Your task to perform on an android device: turn off data saver in the chrome app Image 0: 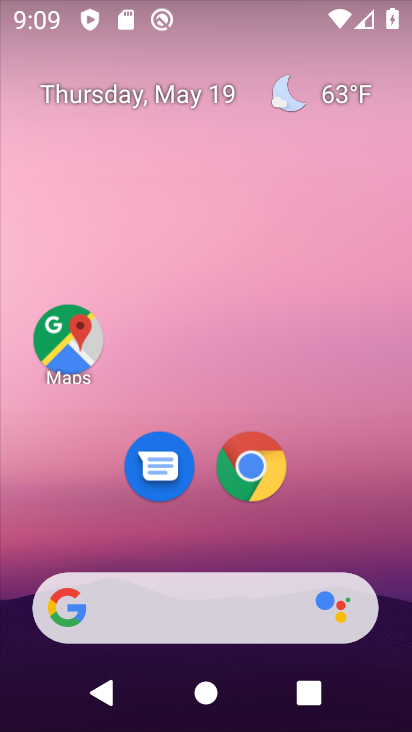
Step 0: drag from (397, 612) to (344, 79)
Your task to perform on an android device: turn off data saver in the chrome app Image 1: 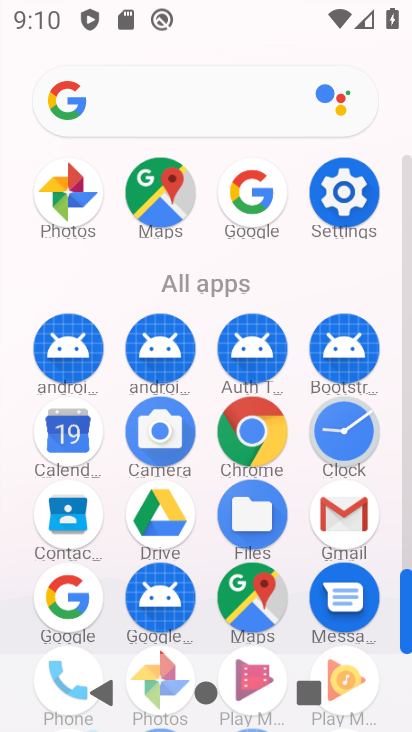
Step 1: click (260, 423)
Your task to perform on an android device: turn off data saver in the chrome app Image 2: 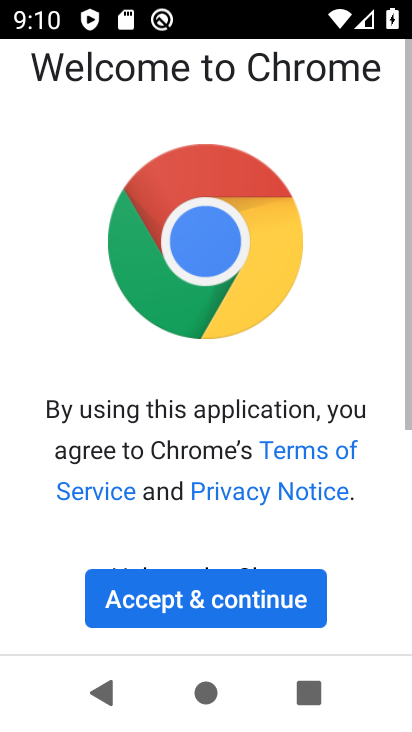
Step 2: click (239, 603)
Your task to perform on an android device: turn off data saver in the chrome app Image 3: 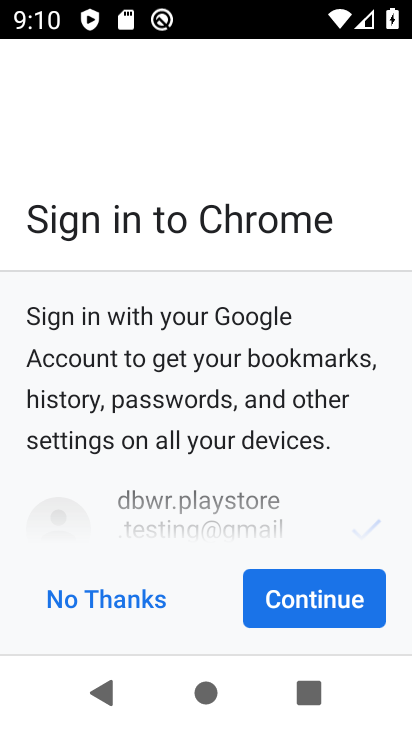
Step 3: click (328, 614)
Your task to perform on an android device: turn off data saver in the chrome app Image 4: 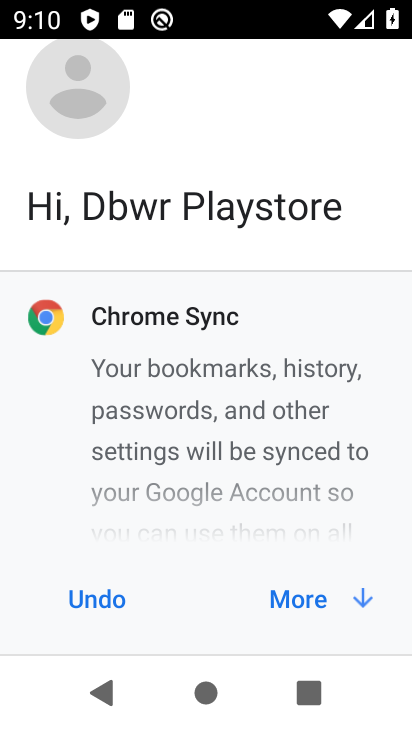
Step 4: click (323, 600)
Your task to perform on an android device: turn off data saver in the chrome app Image 5: 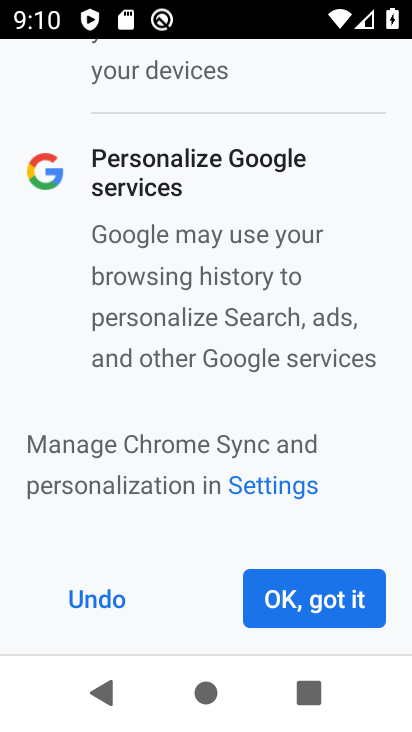
Step 5: click (323, 600)
Your task to perform on an android device: turn off data saver in the chrome app Image 6: 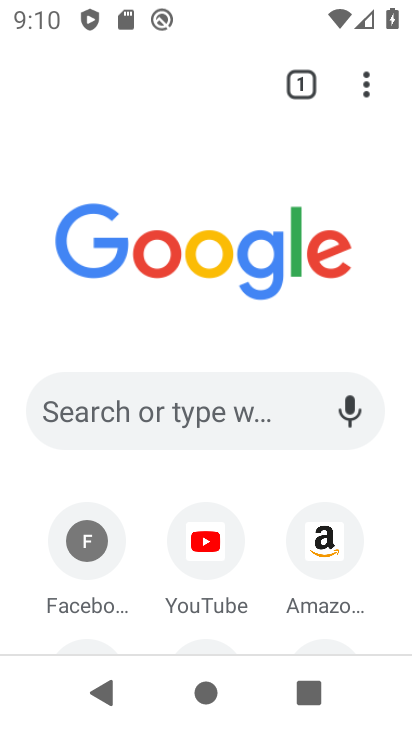
Step 6: click (365, 81)
Your task to perform on an android device: turn off data saver in the chrome app Image 7: 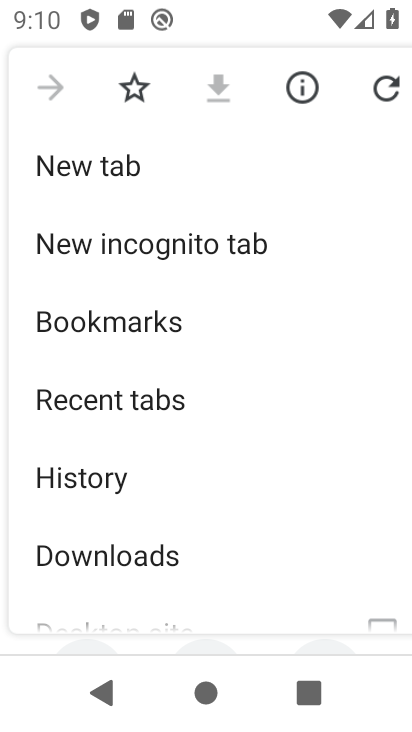
Step 7: drag from (209, 577) to (220, 158)
Your task to perform on an android device: turn off data saver in the chrome app Image 8: 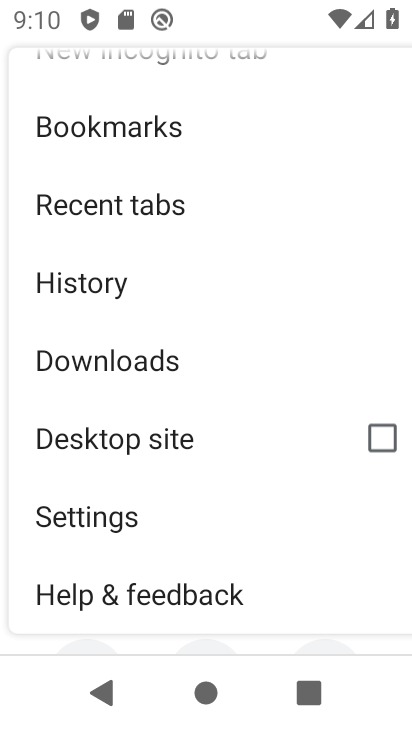
Step 8: click (160, 522)
Your task to perform on an android device: turn off data saver in the chrome app Image 9: 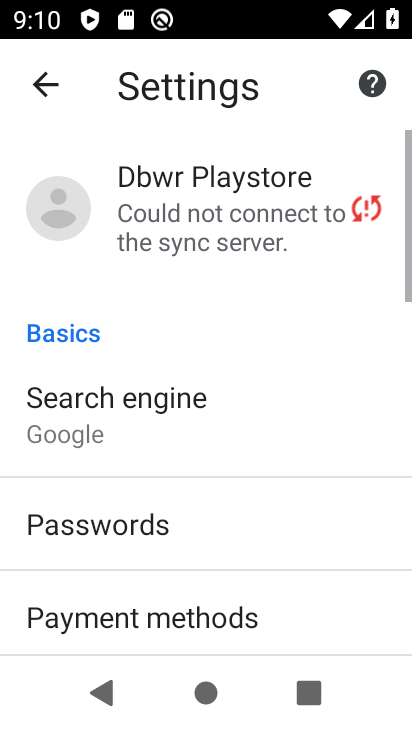
Step 9: drag from (179, 603) to (208, 175)
Your task to perform on an android device: turn off data saver in the chrome app Image 10: 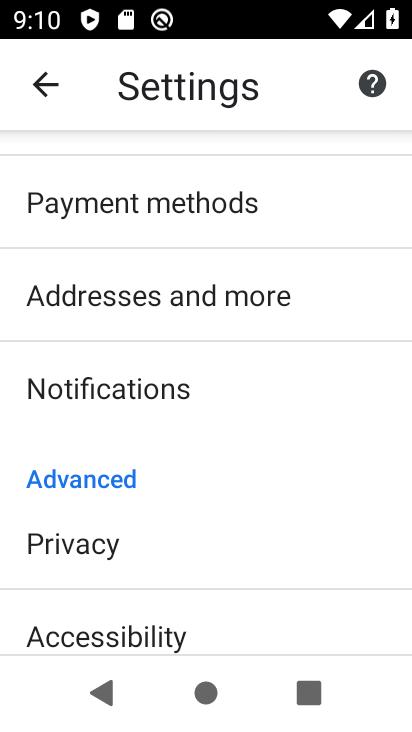
Step 10: drag from (185, 607) to (221, 194)
Your task to perform on an android device: turn off data saver in the chrome app Image 11: 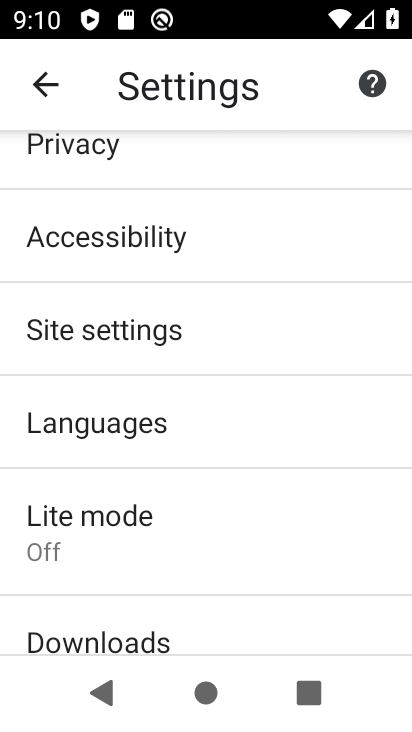
Step 11: click (197, 516)
Your task to perform on an android device: turn off data saver in the chrome app Image 12: 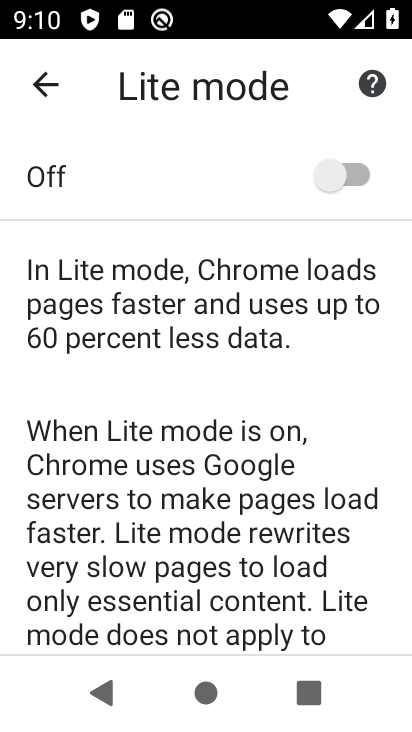
Step 12: task complete